Your task to perform on an android device: change the clock style Image 0: 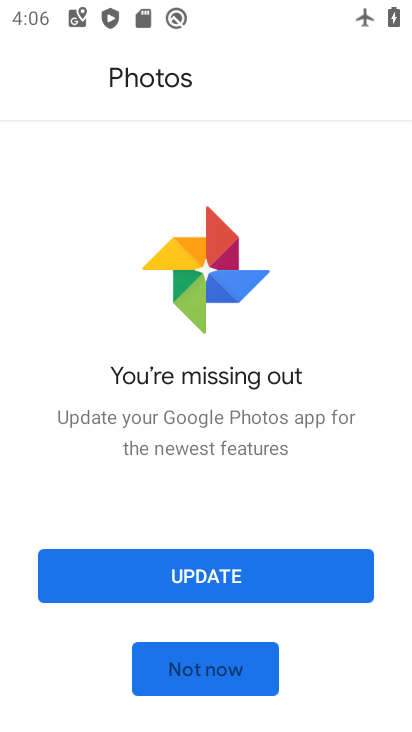
Step 0: press home button
Your task to perform on an android device: change the clock style Image 1: 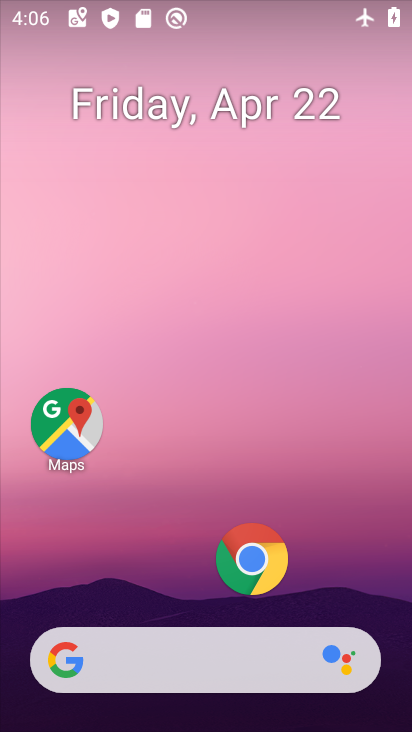
Step 1: drag from (129, 562) to (208, 200)
Your task to perform on an android device: change the clock style Image 2: 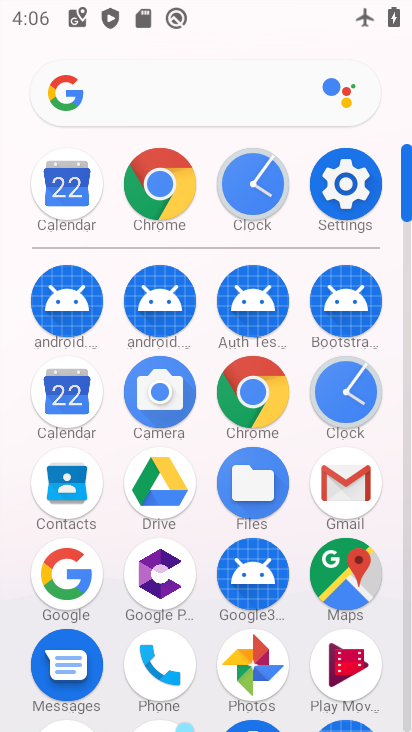
Step 2: click (348, 396)
Your task to perform on an android device: change the clock style Image 3: 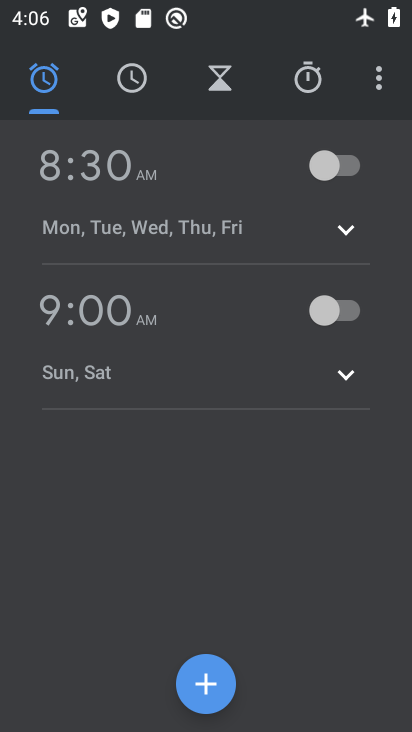
Step 3: click (368, 83)
Your task to perform on an android device: change the clock style Image 4: 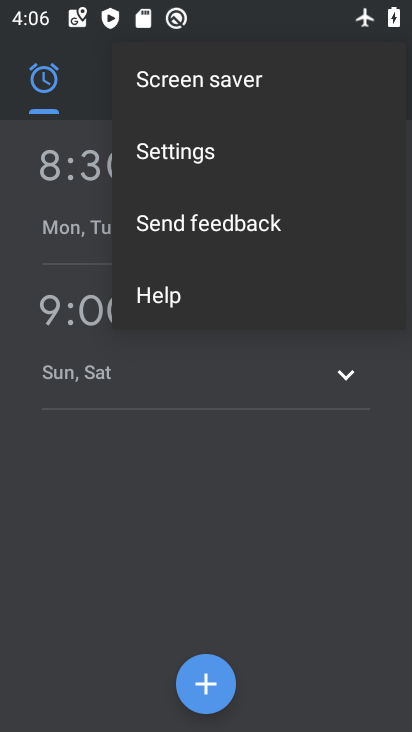
Step 4: click (180, 159)
Your task to perform on an android device: change the clock style Image 5: 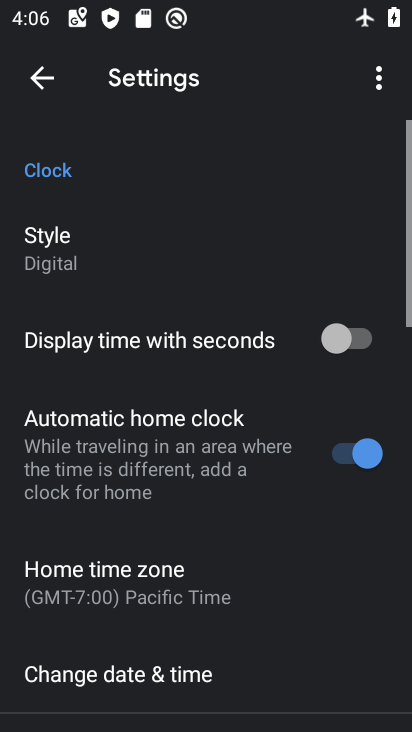
Step 5: click (74, 263)
Your task to perform on an android device: change the clock style Image 6: 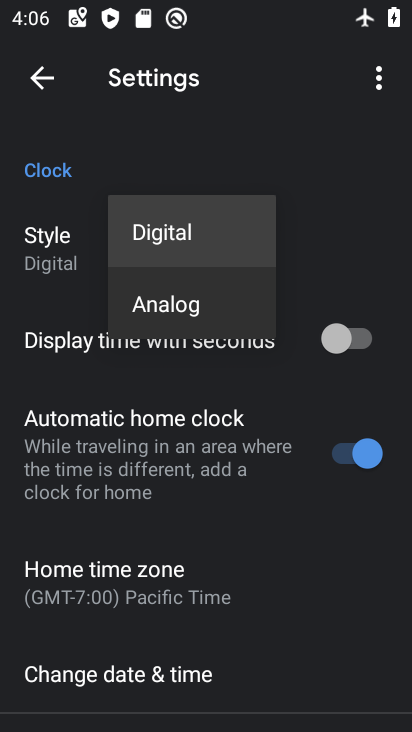
Step 6: click (167, 302)
Your task to perform on an android device: change the clock style Image 7: 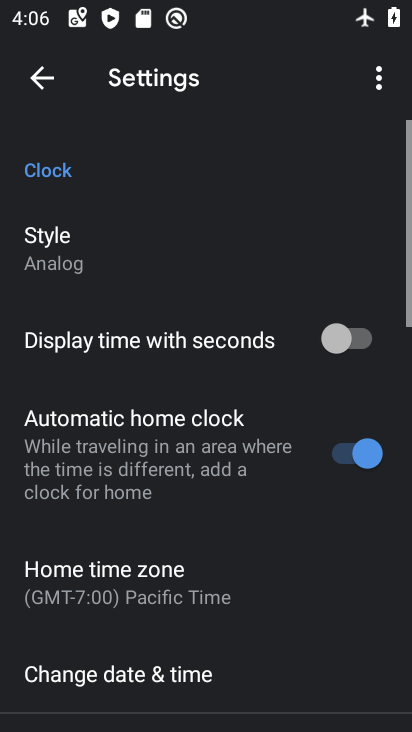
Step 7: task complete